Your task to perform on an android device: change the clock display to analog Image 0: 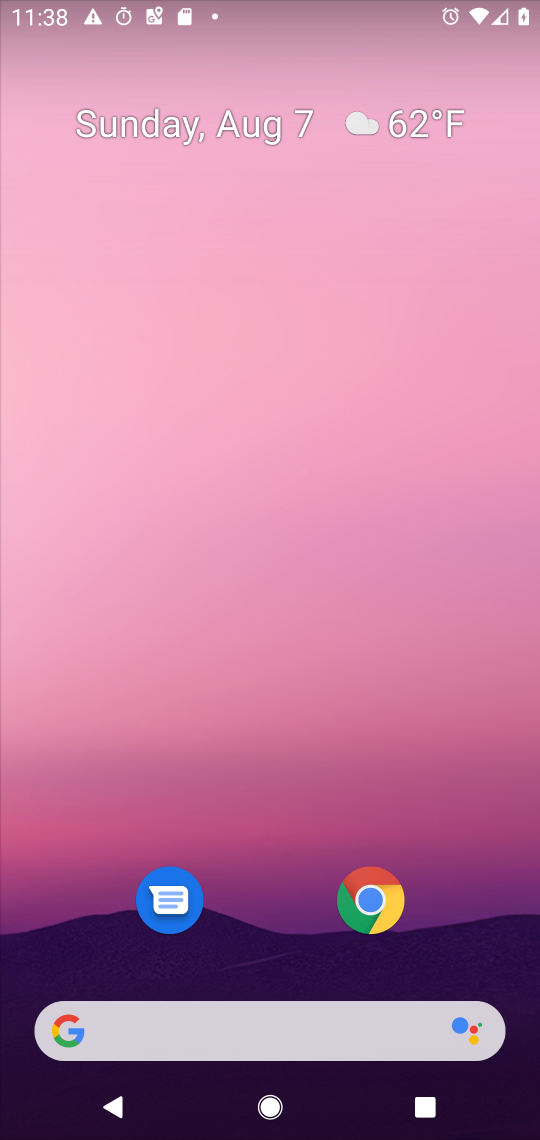
Step 0: drag from (275, 937) to (261, 12)
Your task to perform on an android device: change the clock display to analog Image 1: 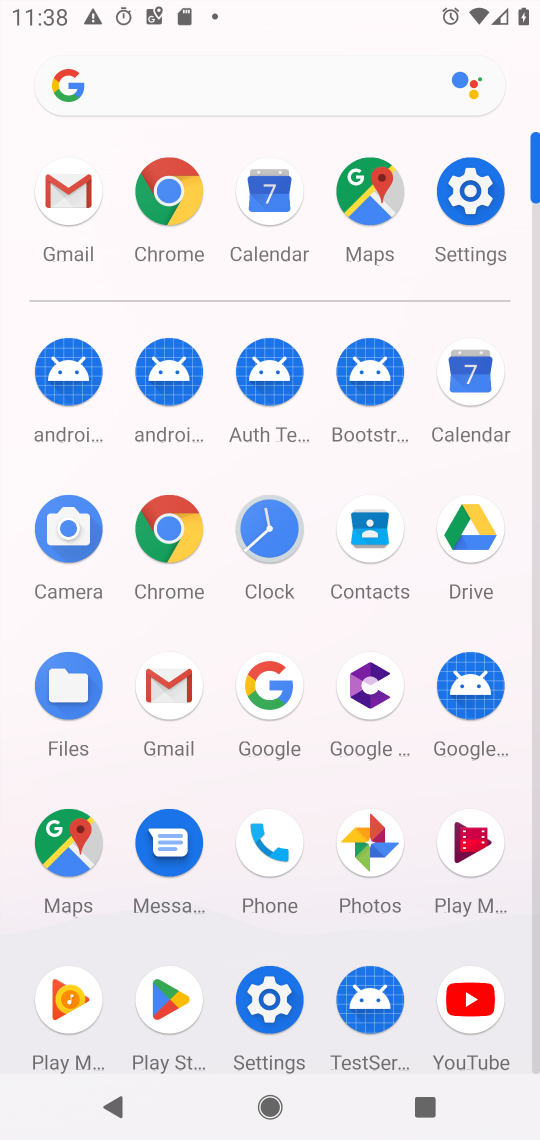
Step 1: click (272, 516)
Your task to perform on an android device: change the clock display to analog Image 2: 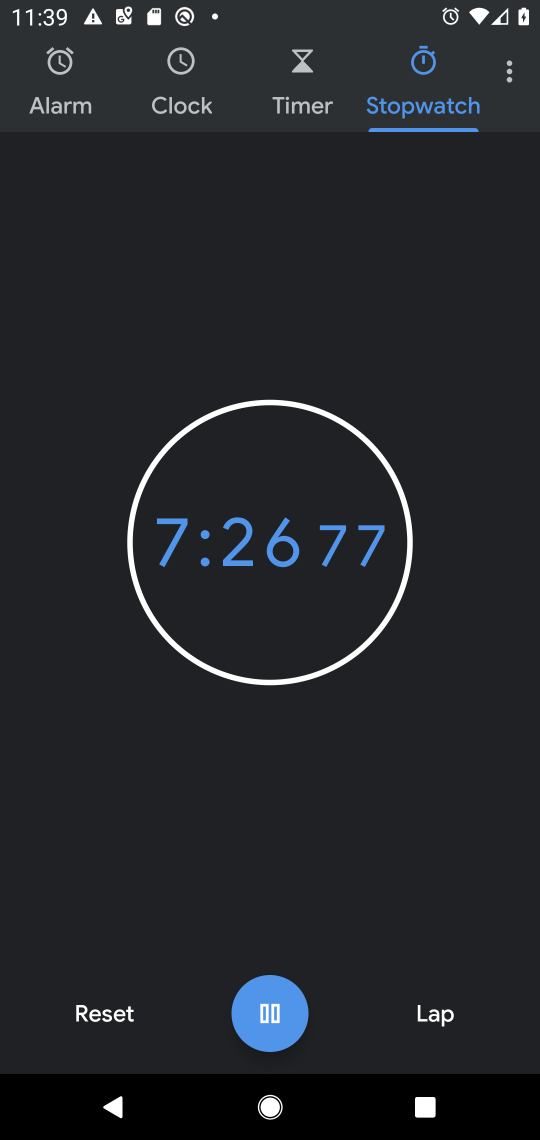
Step 2: click (510, 70)
Your task to perform on an android device: change the clock display to analog Image 3: 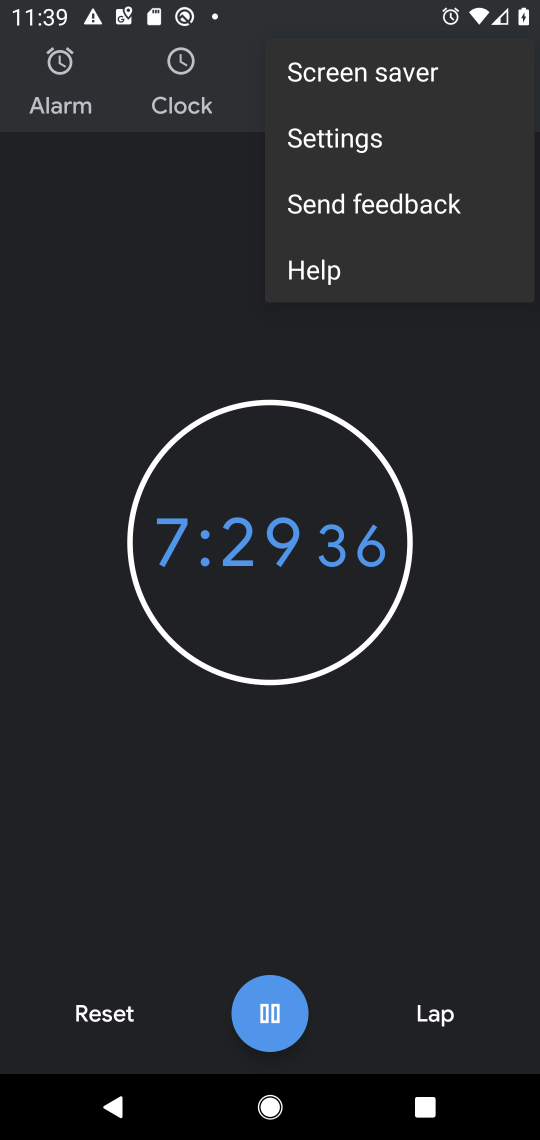
Step 3: click (360, 141)
Your task to perform on an android device: change the clock display to analog Image 4: 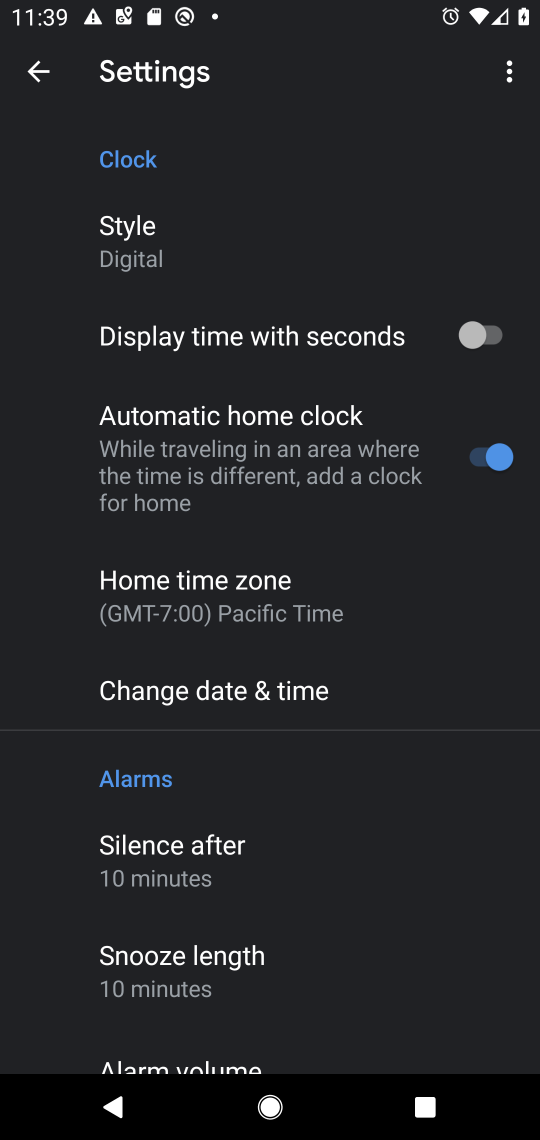
Step 4: click (175, 241)
Your task to perform on an android device: change the clock display to analog Image 5: 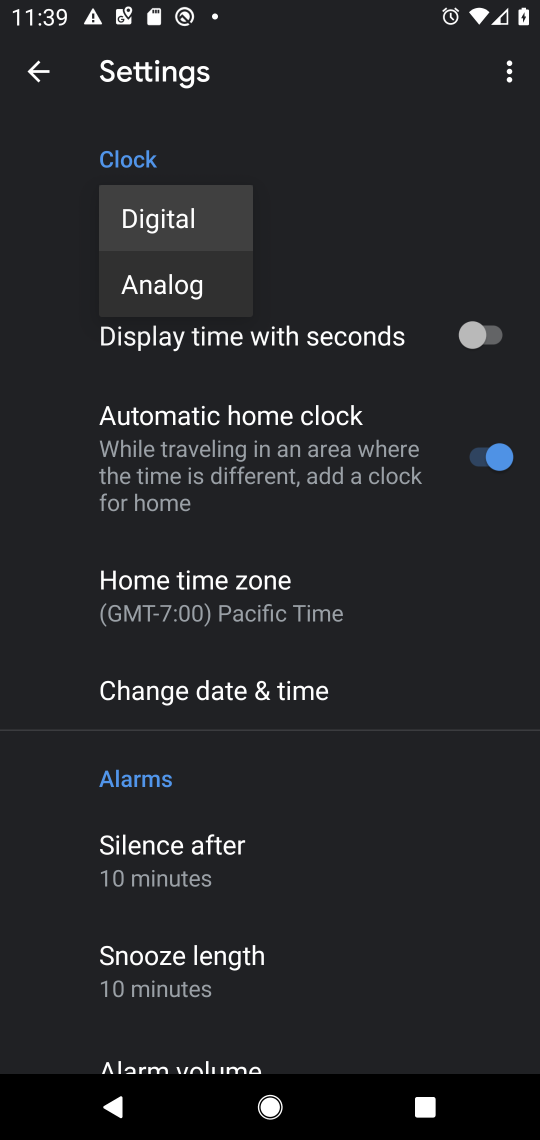
Step 5: click (186, 297)
Your task to perform on an android device: change the clock display to analog Image 6: 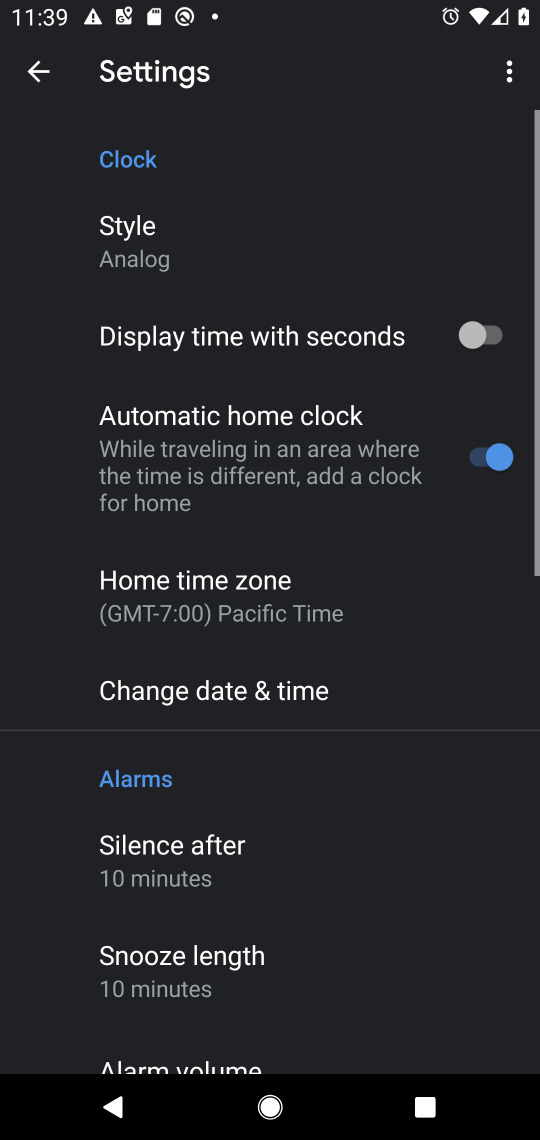
Step 6: task complete